Your task to perform on an android device: toggle airplane mode Image 0: 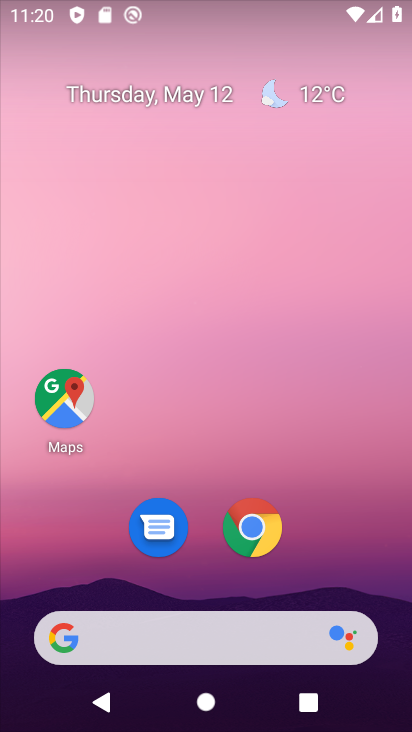
Step 0: drag from (364, 54) to (258, 662)
Your task to perform on an android device: toggle airplane mode Image 1: 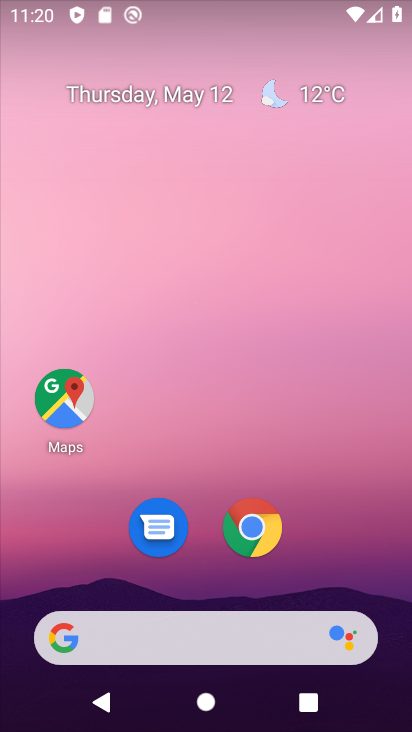
Step 1: drag from (13, 695) to (343, 174)
Your task to perform on an android device: toggle airplane mode Image 2: 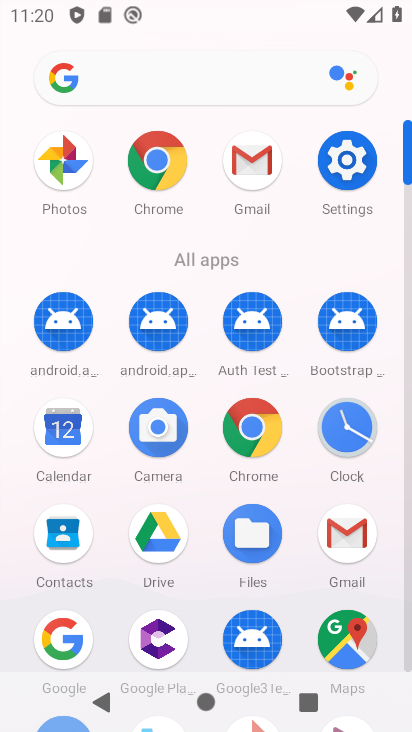
Step 2: click (341, 154)
Your task to perform on an android device: toggle airplane mode Image 3: 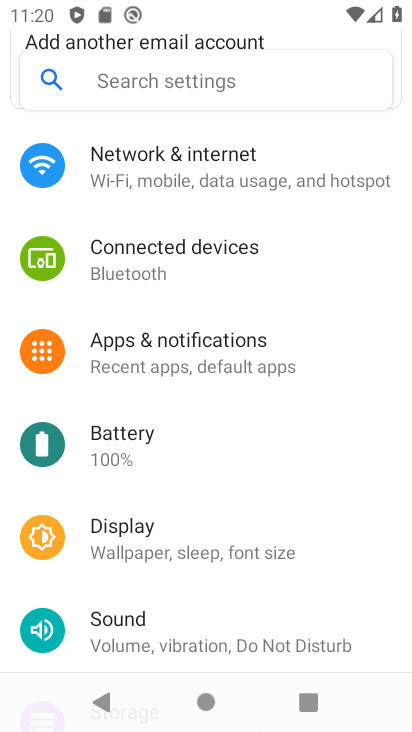
Step 3: click (307, 174)
Your task to perform on an android device: toggle airplane mode Image 4: 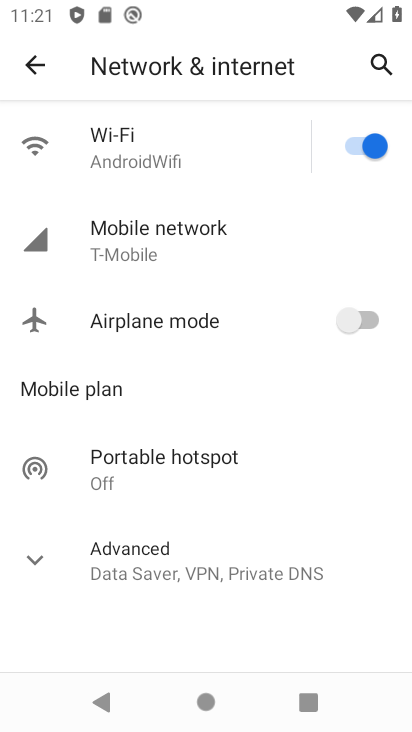
Step 4: click (352, 334)
Your task to perform on an android device: toggle airplane mode Image 5: 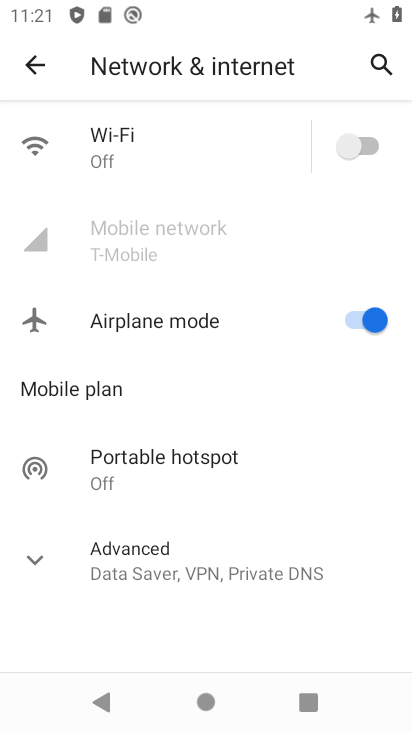
Step 5: task complete